Your task to perform on an android device: open a new tab in the chrome app Image 0: 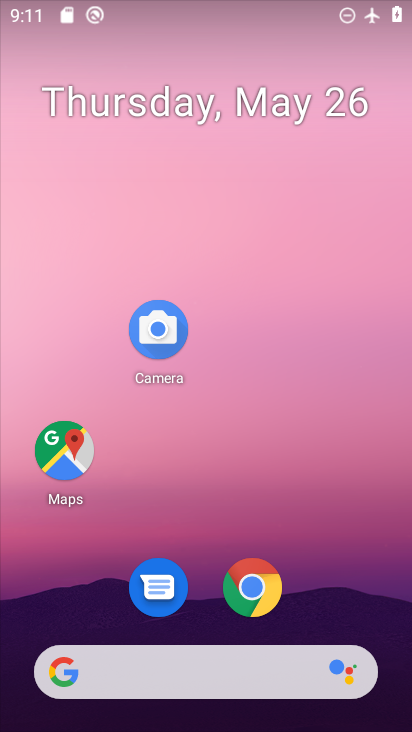
Step 0: click (241, 595)
Your task to perform on an android device: open a new tab in the chrome app Image 1: 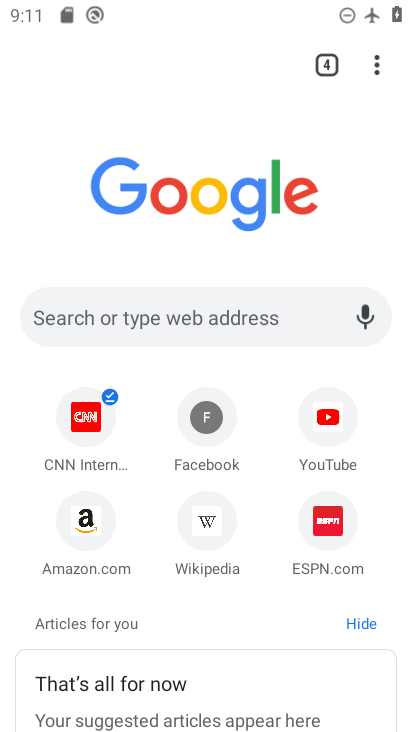
Step 1: click (322, 59)
Your task to perform on an android device: open a new tab in the chrome app Image 2: 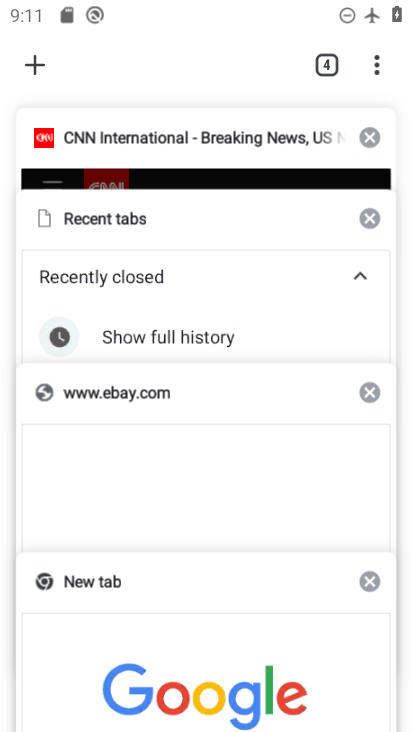
Step 2: click (34, 61)
Your task to perform on an android device: open a new tab in the chrome app Image 3: 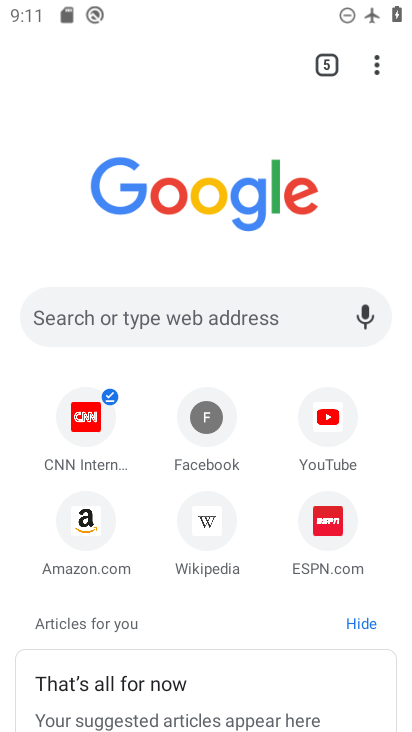
Step 3: task complete